Your task to perform on an android device: Turn on the flashlight Image 0: 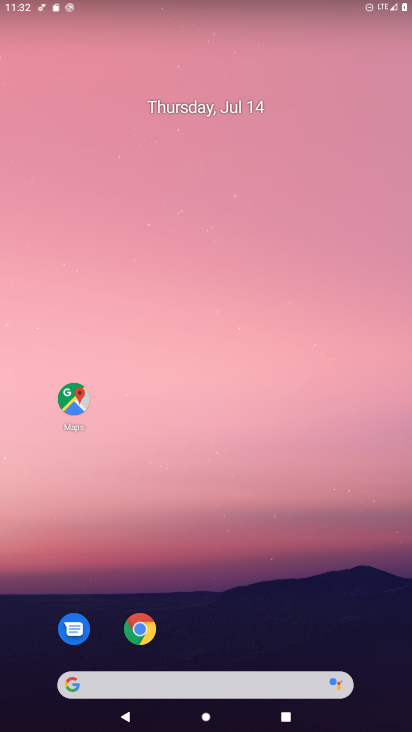
Step 0: drag from (308, 42) to (252, 444)
Your task to perform on an android device: Turn on the flashlight Image 1: 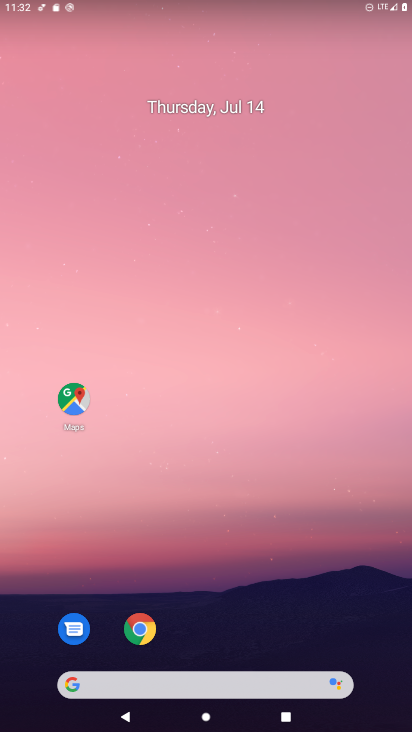
Step 1: task complete